Your task to perform on an android device: Add alienware aurora to the cart on target Image 0: 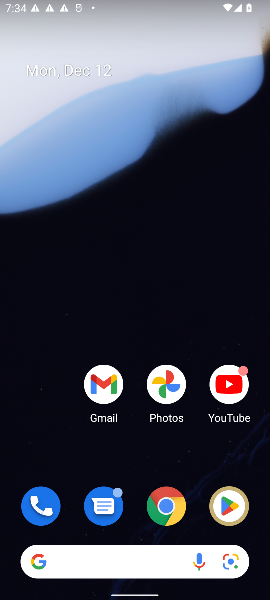
Step 0: click (139, 544)
Your task to perform on an android device: Add alienware aurora to the cart on target Image 1: 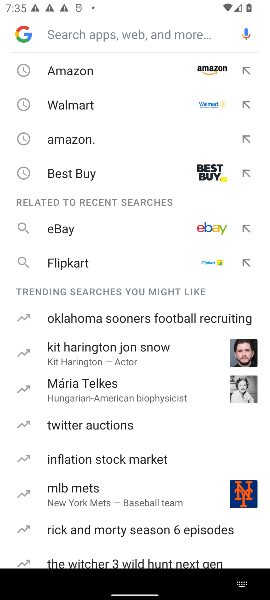
Step 1: type "target"
Your task to perform on an android device: Add alienware aurora to the cart on target Image 2: 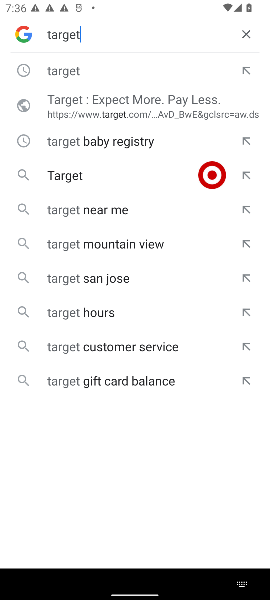
Step 2: click (64, 192)
Your task to perform on an android device: Add alienware aurora to the cart on target Image 3: 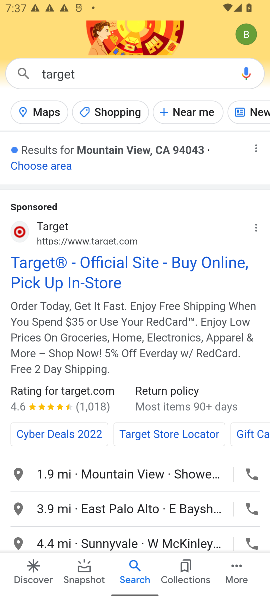
Step 3: click (52, 276)
Your task to perform on an android device: Add alienware aurora to the cart on target Image 4: 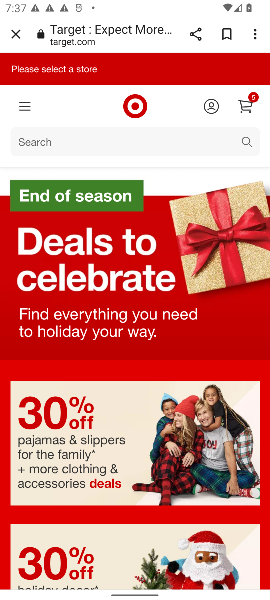
Step 4: click (68, 153)
Your task to perform on an android device: Add alienware aurora to the cart on target Image 5: 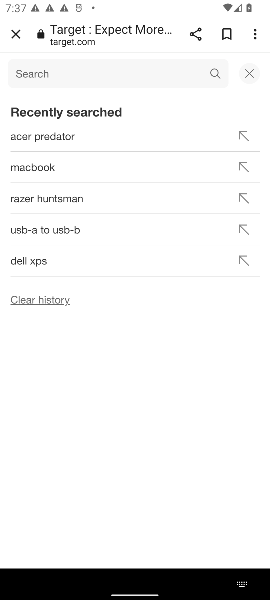
Step 5: type "alien"
Your task to perform on an android device: Add alienware aurora to the cart on target Image 6: 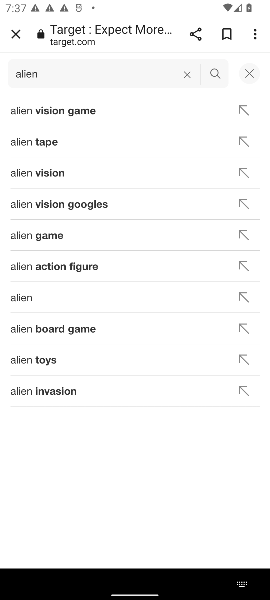
Step 6: click (207, 75)
Your task to perform on an android device: Add alienware aurora to the cart on target Image 7: 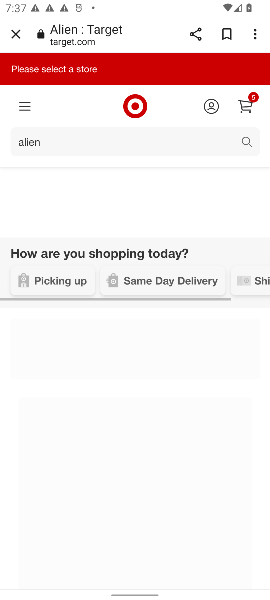
Step 7: task complete